Your task to perform on an android device: Open Chrome and go to the settings page Image 0: 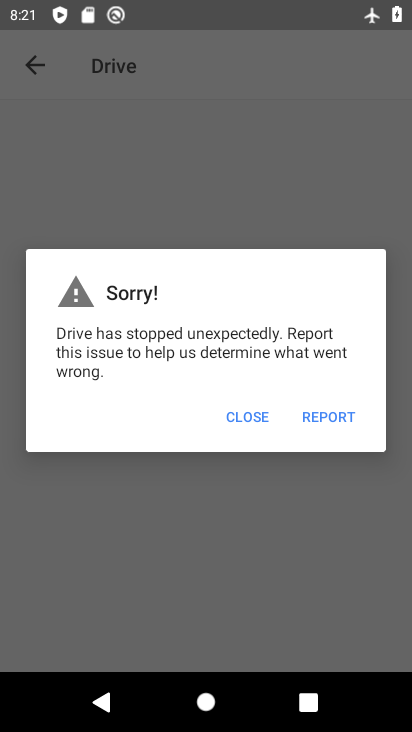
Step 0: press home button
Your task to perform on an android device: Open Chrome and go to the settings page Image 1: 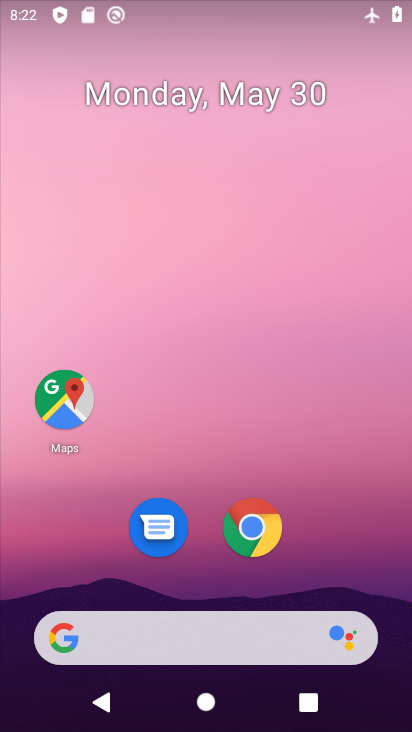
Step 1: click (264, 530)
Your task to perform on an android device: Open Chrome and go to the settings page Image 2: 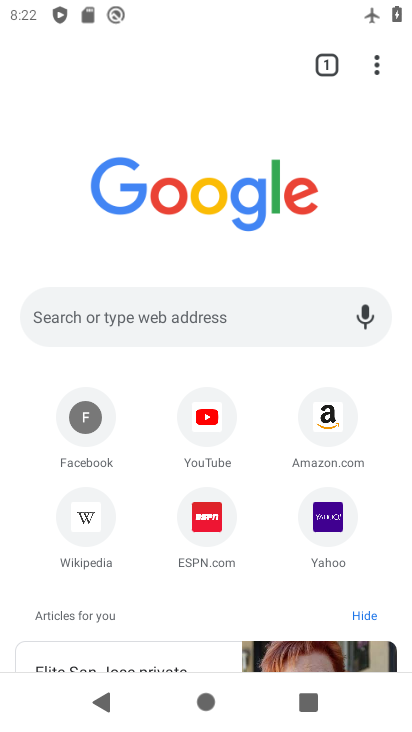
Step 2: click (381, 72)
Your task to perform on an android device: Open Chrome and go to the settings page Image 3: 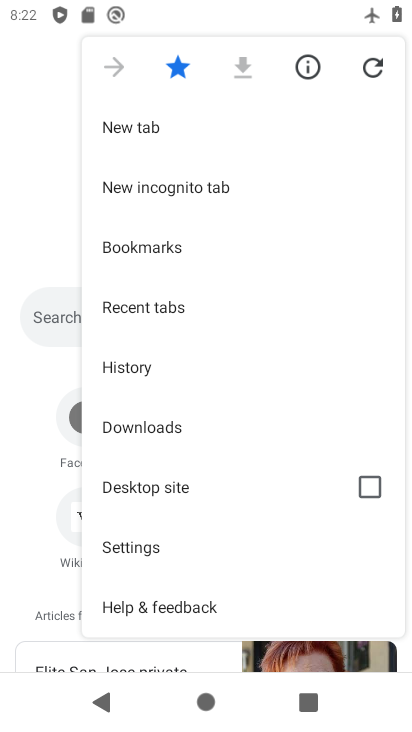
Step 3: click (158, 548)
Your task to perform on an android device: Open Chrome and go to the settings page Image 4: 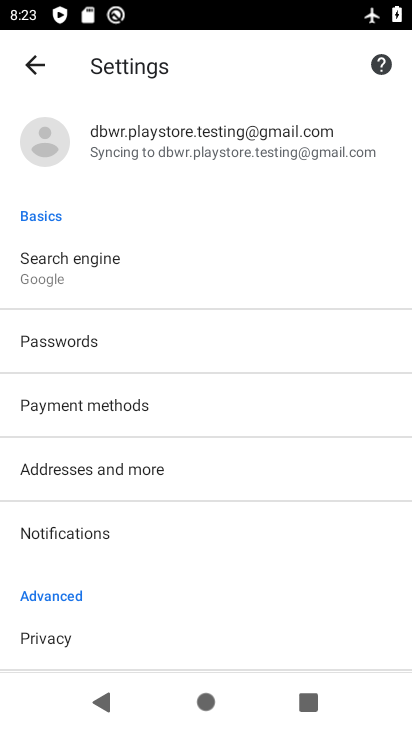
Step 4: task complete